Your task to perform on an android device: open wifi settings Image 0: 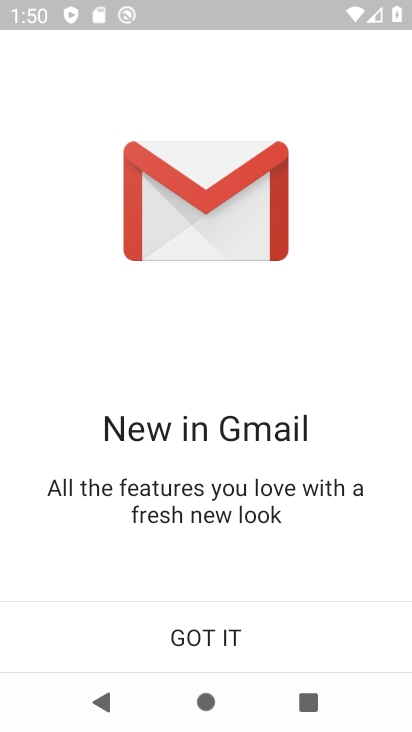
Step 0: press back button
Your task to perform on an android device: open wifi settings Image 1: 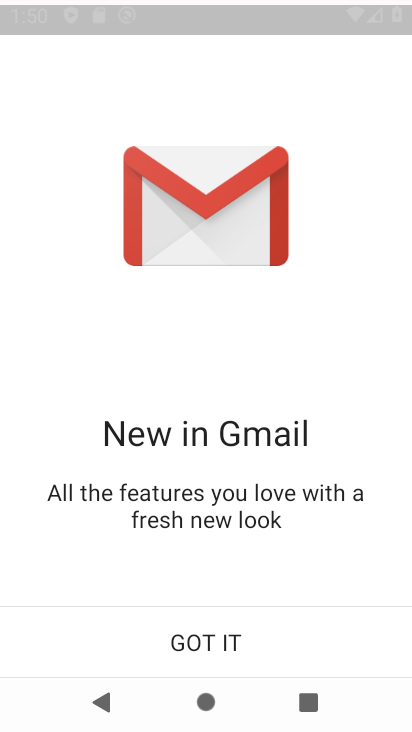
Step 1: press home button
Your task to perform on an android device: open wifi settings Image 2: 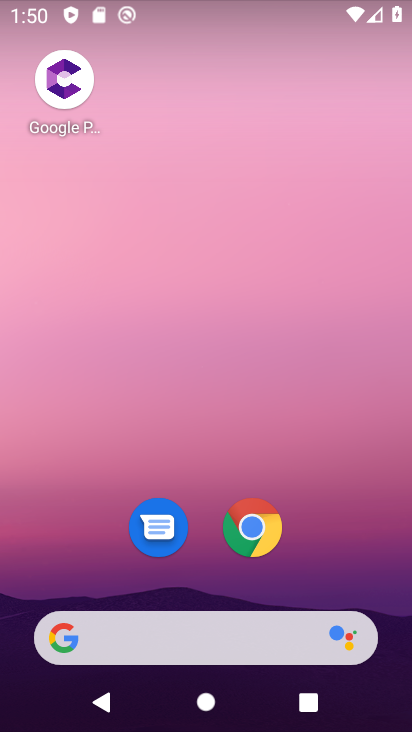
Step 2: drag from (182, 606) to (227, 101)
Your task to perform on an android device: open wifi settings Image 3: 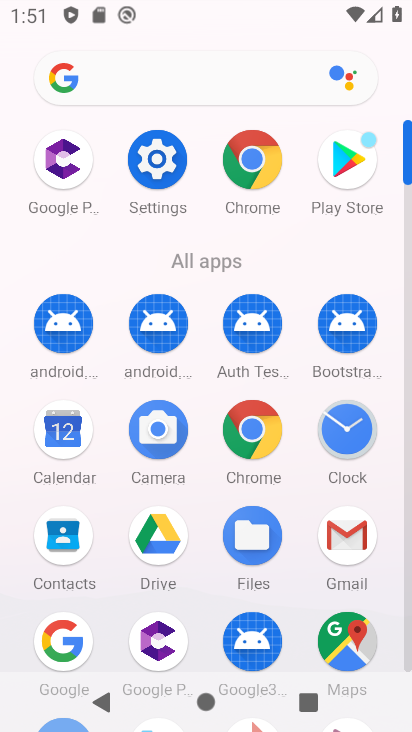
Step 3: drag from (84, 596) to (140, 325)
Your task to perform on an android device: open wifi settings Image 4: 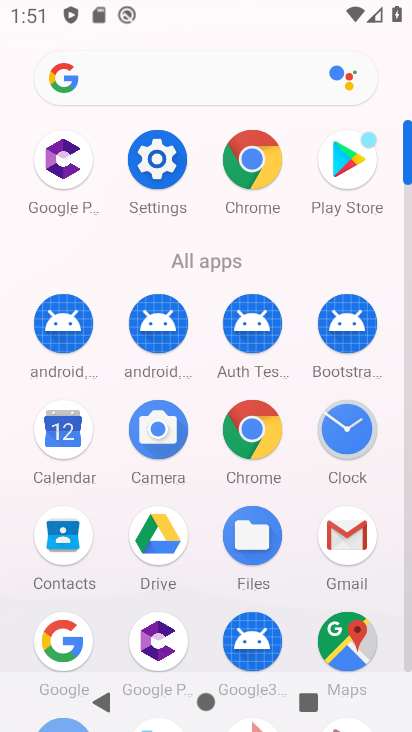
Step 4: drag from (202, 649) to (233, 421)
Your task to perform on an android device: open wifi settings Image 5: 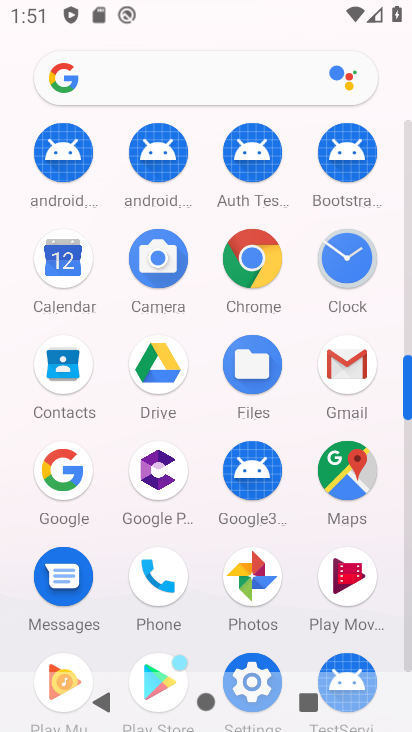
Step 5: click (265, 664)
Your task to perform on an android device: open wifi settings Image 6: 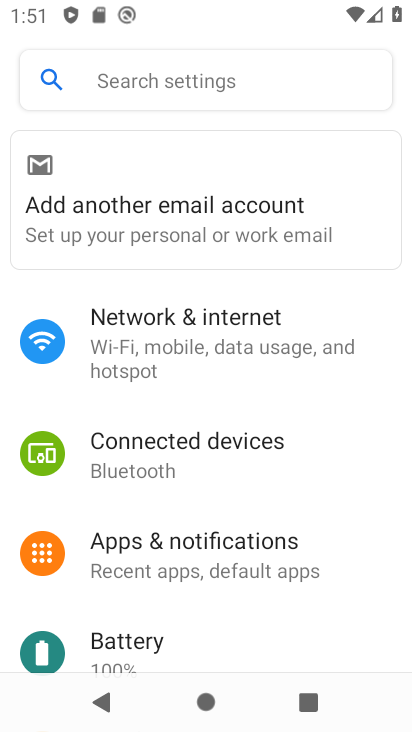
Step 6: click (211, 349)
Your task to perform on an android device: open wifi settings Image 7: 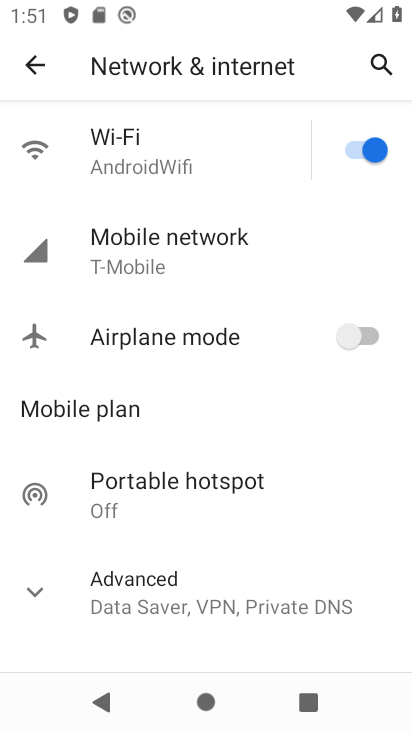
Step 7: click (199, 163)
Your task to perform on an android device: open wifi settings Image 8: 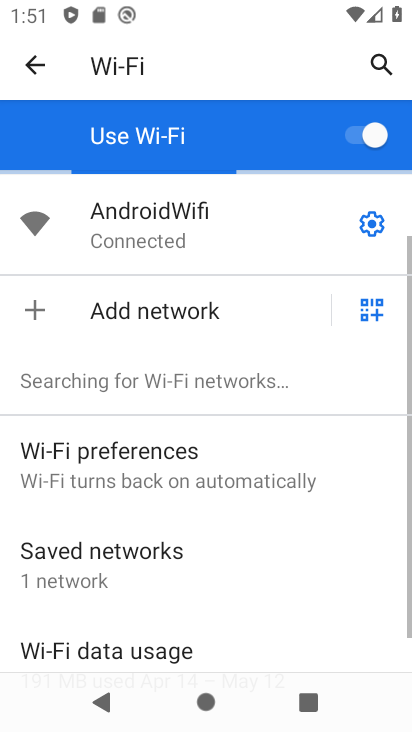
Step 8: task complete